Your task to perform on an android device: change notification settings in the gmail app Image 0: 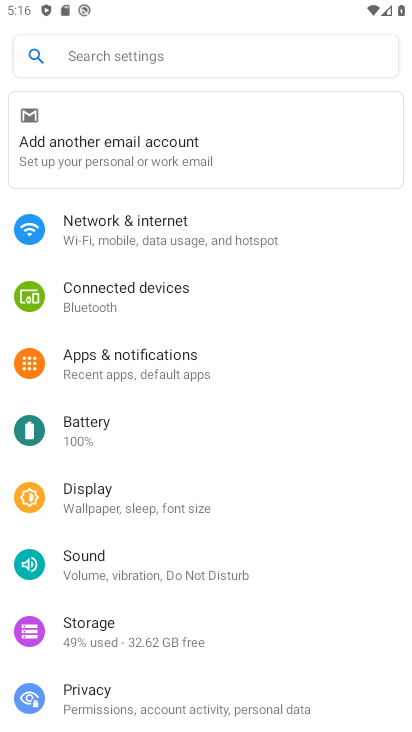
Step 0: press home button
Your task to perform on an android device: change notification settings in the gmail app Image 1: 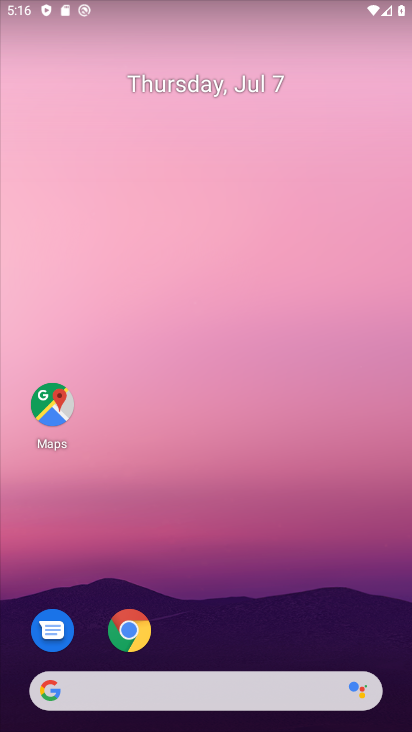
Step 1: drag from (179, 546) to (149, 248)
Your task to perform on an android device: change notification settings in the gmail app Image 2: 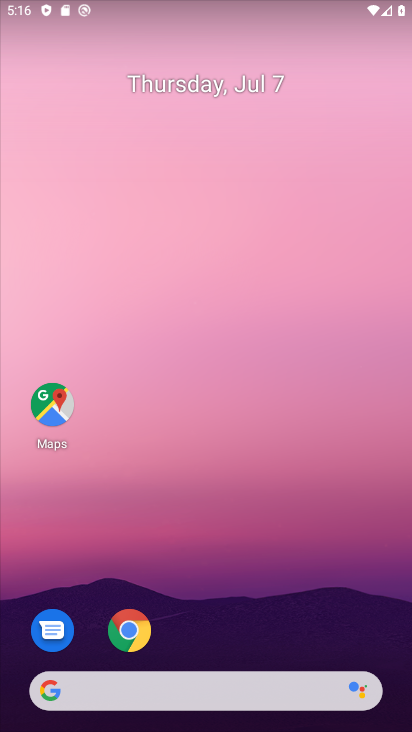
Step 2: drag from (238, 583) to (238, 287)
Your task to perform on an android device: change notification settings in the gmail app Image 3: 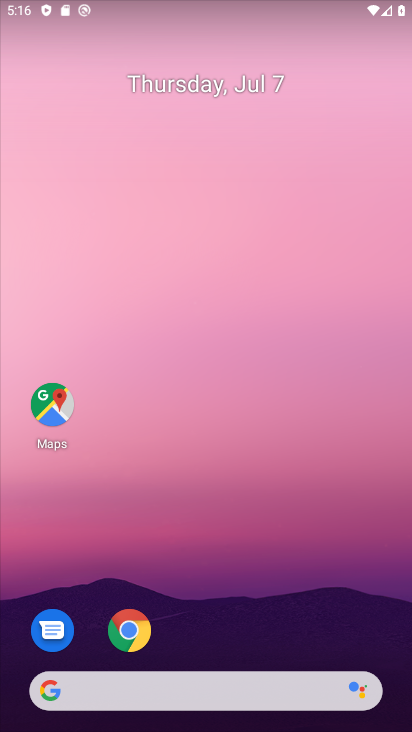
Step 3: drag from (190, 546) to (183, 101)
Your task to perform on an android device: change notification settings in the gmail app Image 4: 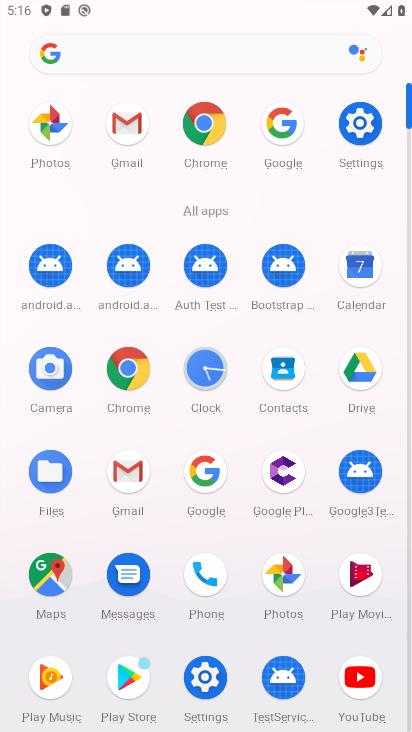
Step 4: click (122, 124)
Your task to perform on an android device: change notification settings in the gmail app Image 5: 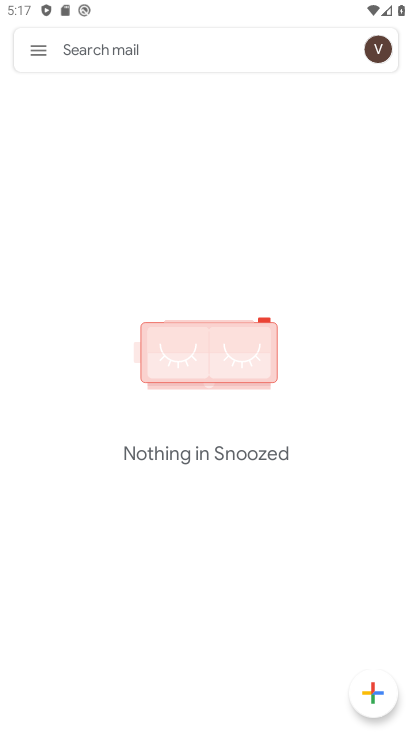
Step 5: click (42, 47)
Your task to perform on an android device: change notification settings in the gmail app Image 6: 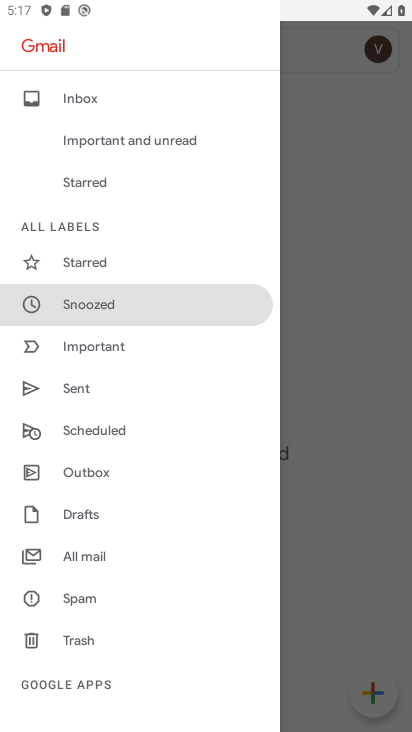
Step 6: drag from (114, 449) to (148, 203)
Your task to perform on an android device: change notification settings in the gmail app Image 7: 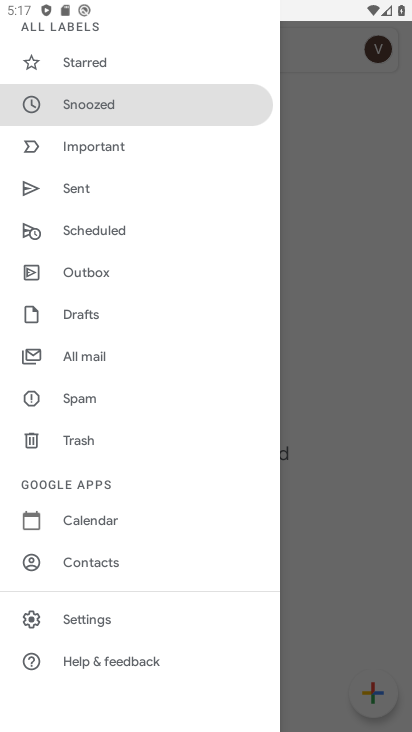
Step 7: click (61, 618)
Your task to perform on an android device: change notification settings in the gmail app Image 8: 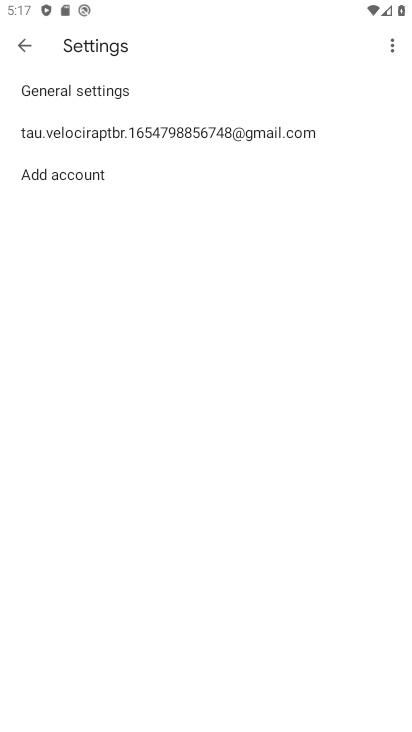
Step 8: click (247, 131)
Your task to perform on an android device: change notification settings in the gmail app Image 9: 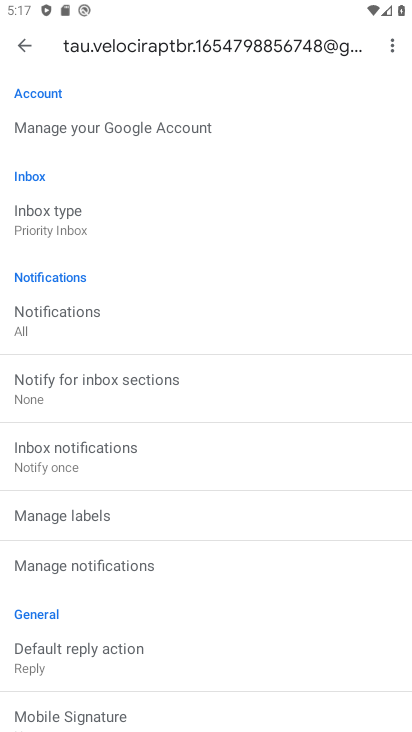
Step 9: click (79, 327)
Your task to perform on an android device: change notification settings in the gmail app Image 10: 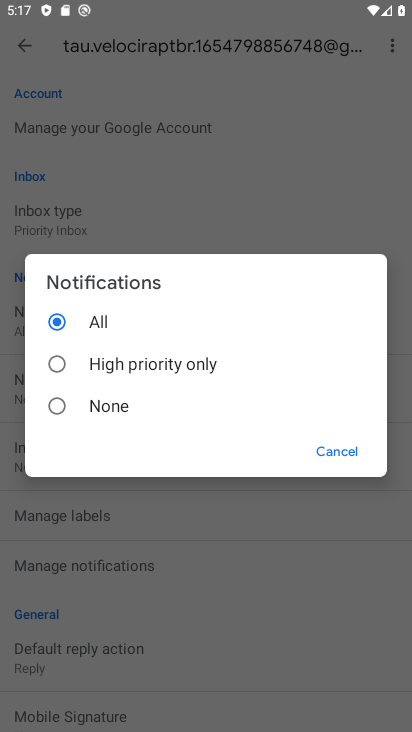
Step 10: click (53, 416)
Your task to perform on an android device: change notification settings in the gmail app Image 11: 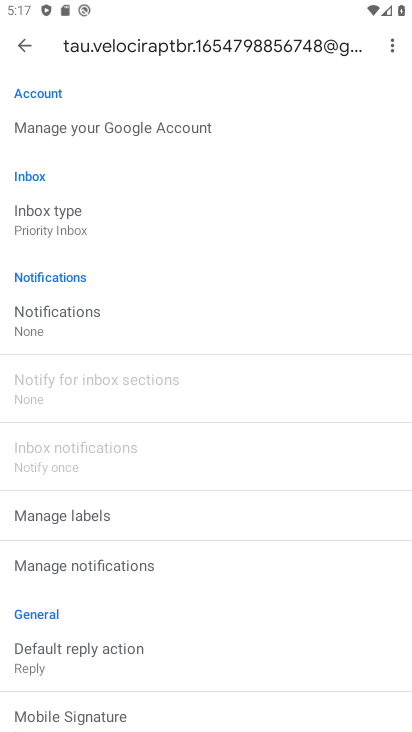
Step 11: task complete